Your task to perform on an android device: What's on my calendar today? Image 0: 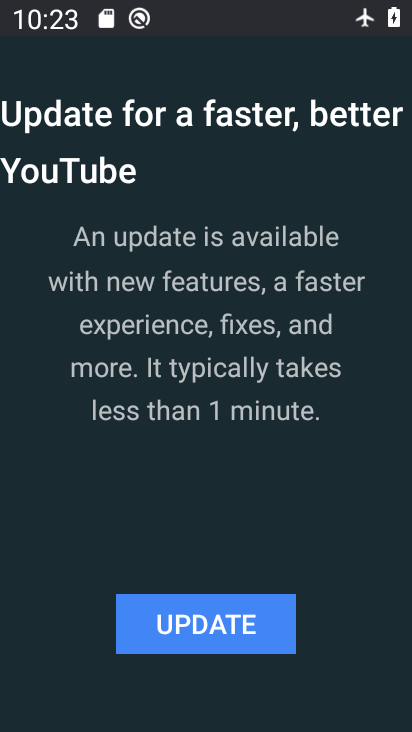
Step 0: press home button
Your task to perform on an android device: What's on my calendar today? Image 1: 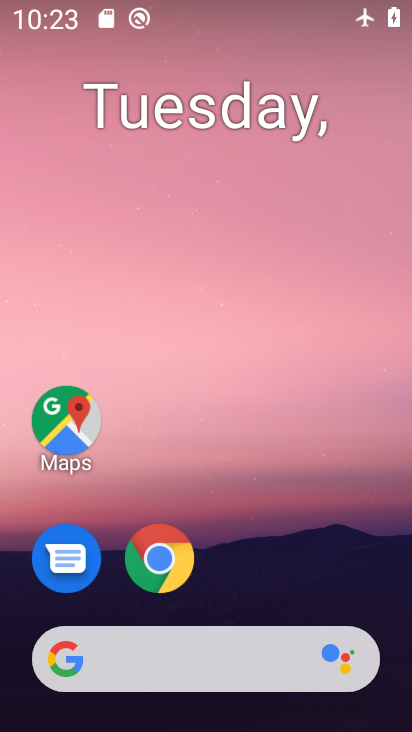
Step 1: drag from (335, 570) to (391, 127)
Your task to perform on an android device: What's on my calendar today? Image 2: 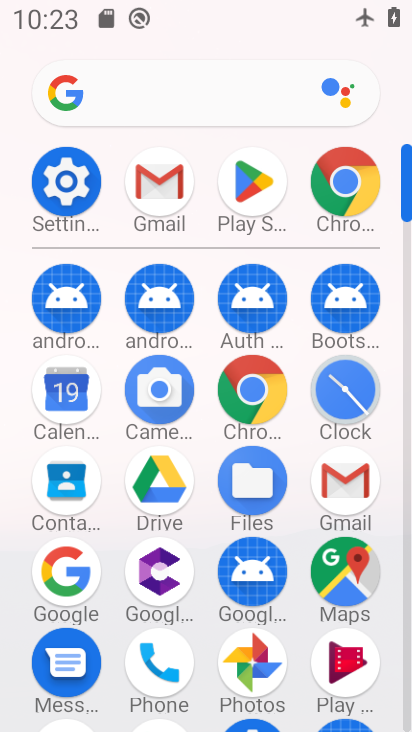
Step 2: click (63, 405)
Your task to perform on an android device: What's on my calendar today? Image 3: 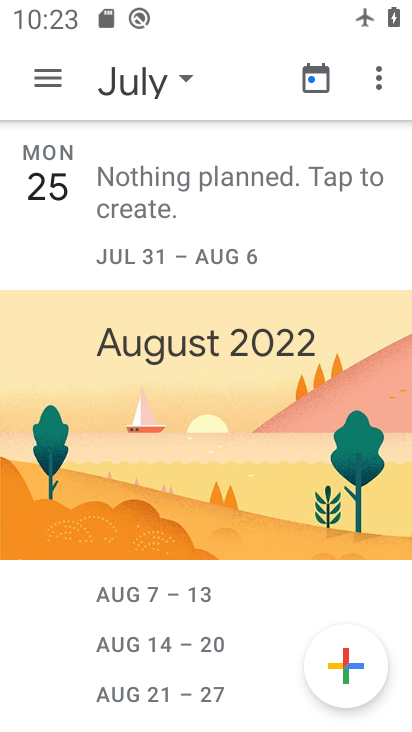
Step 3: click (184, 83)
Your task to perform on an android device: What's on my calendar today? Image 4: 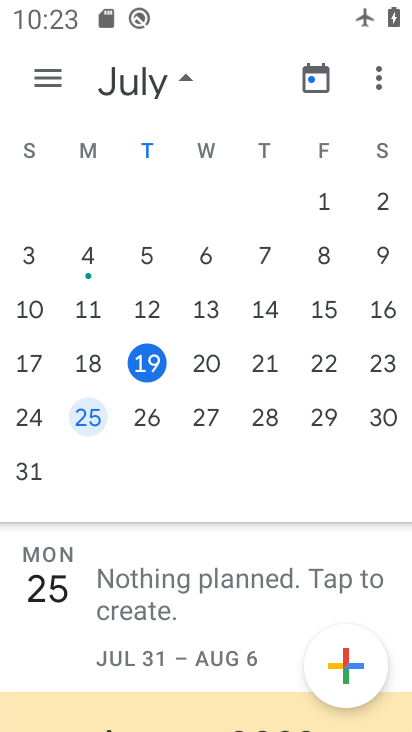
Step 4: click (203, 352)
Your task to perform on an android device: What's on my calendar today? Image 5: 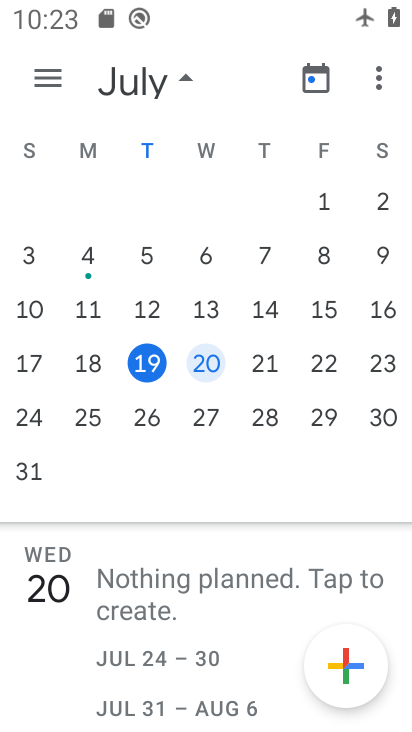
Step 5: task complete